Your task to perform on an android device: install app "Instagram" Image 0: 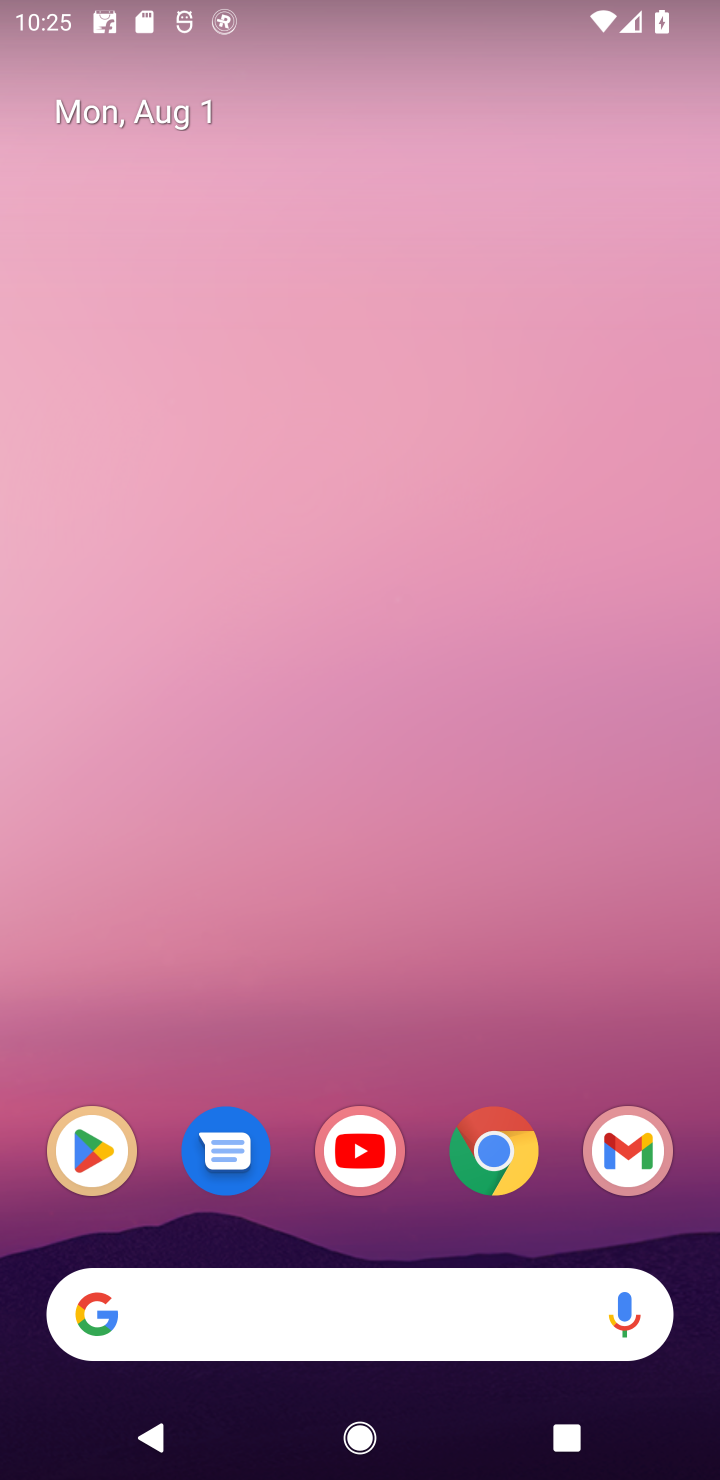
Step 0: click (66, 1136)
Your task to perform on an android device: install app "Instagram" Image 1: 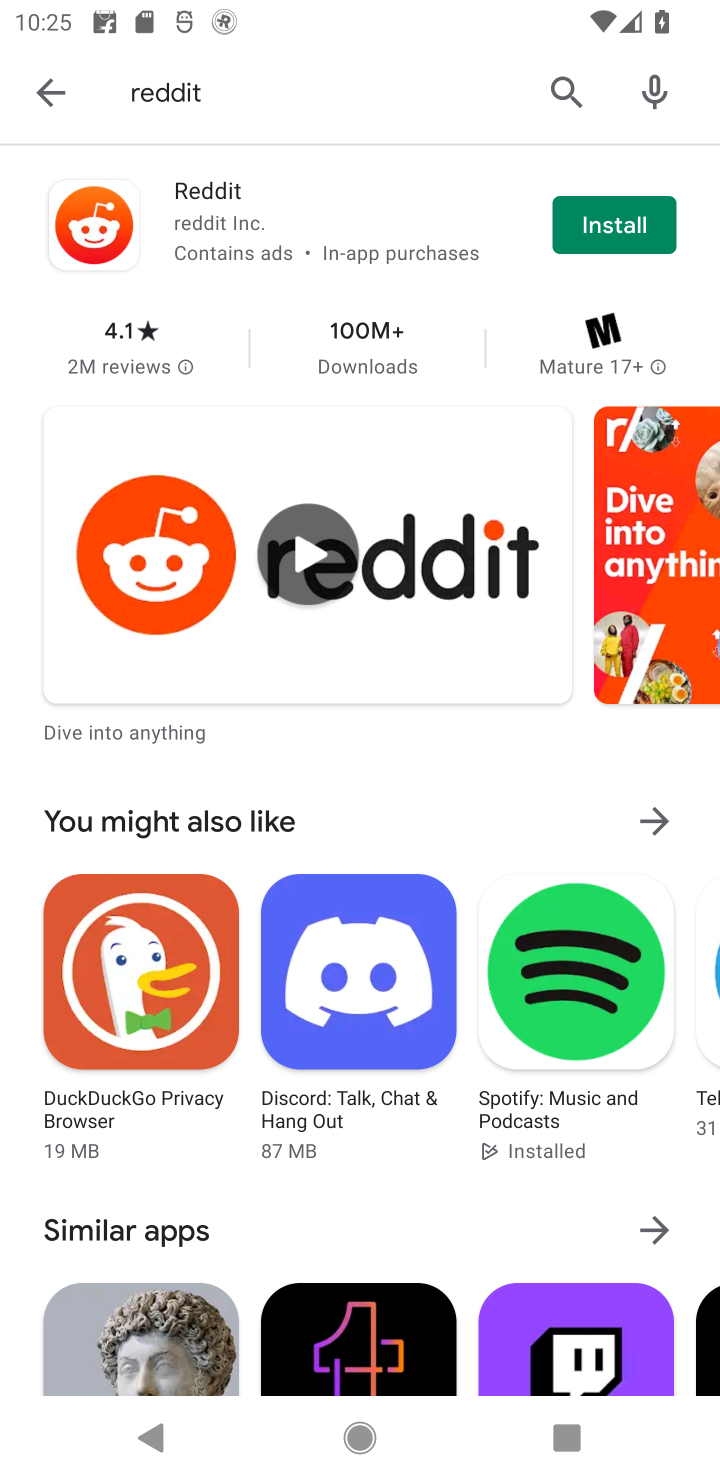
Step 1: click (576, 90)
Your task to perform on an android device: install app "Instagram" Image 2: 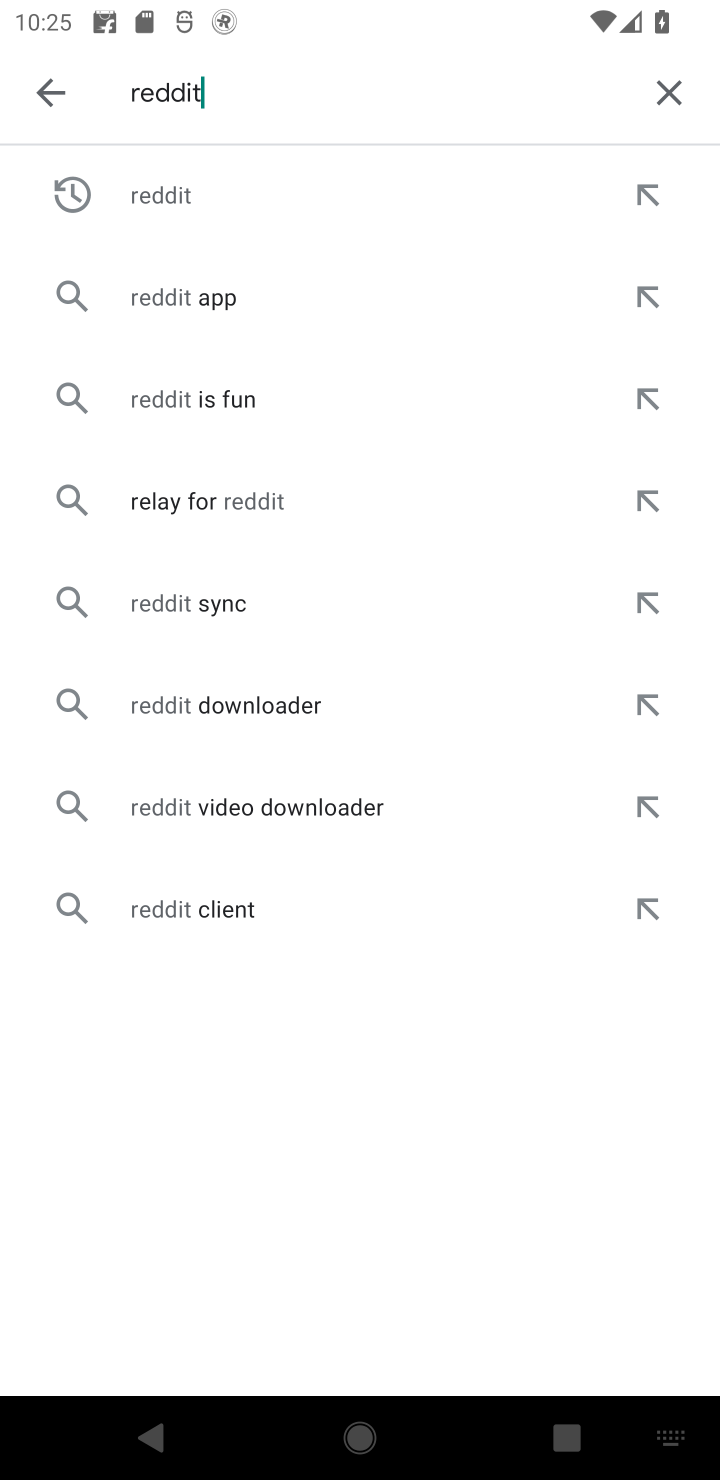
Step 2: click (653, 91)
Your task to perform on an android device: install app "Instagram" Image 3: 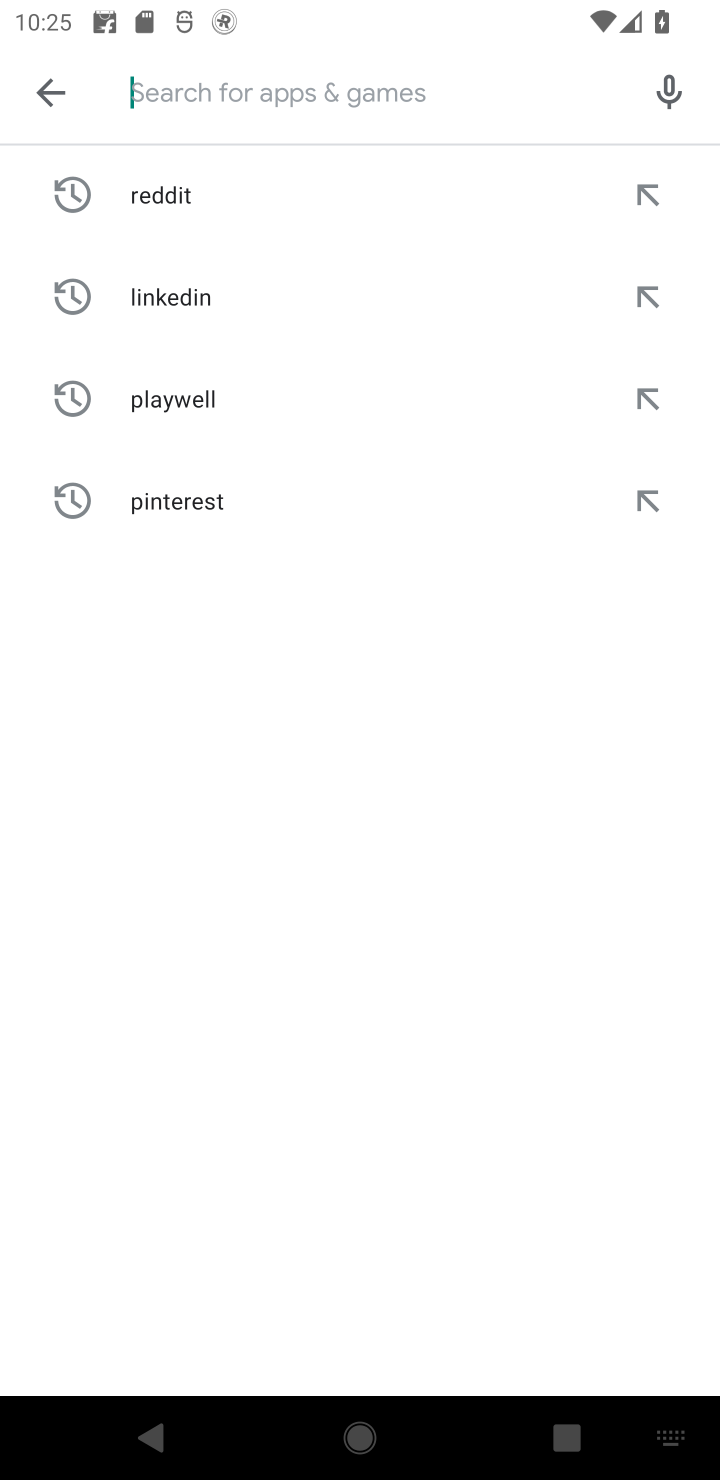
Step 3: type "Instagram"
Your task to perform on an android device: install app "Instagram" Image 4: 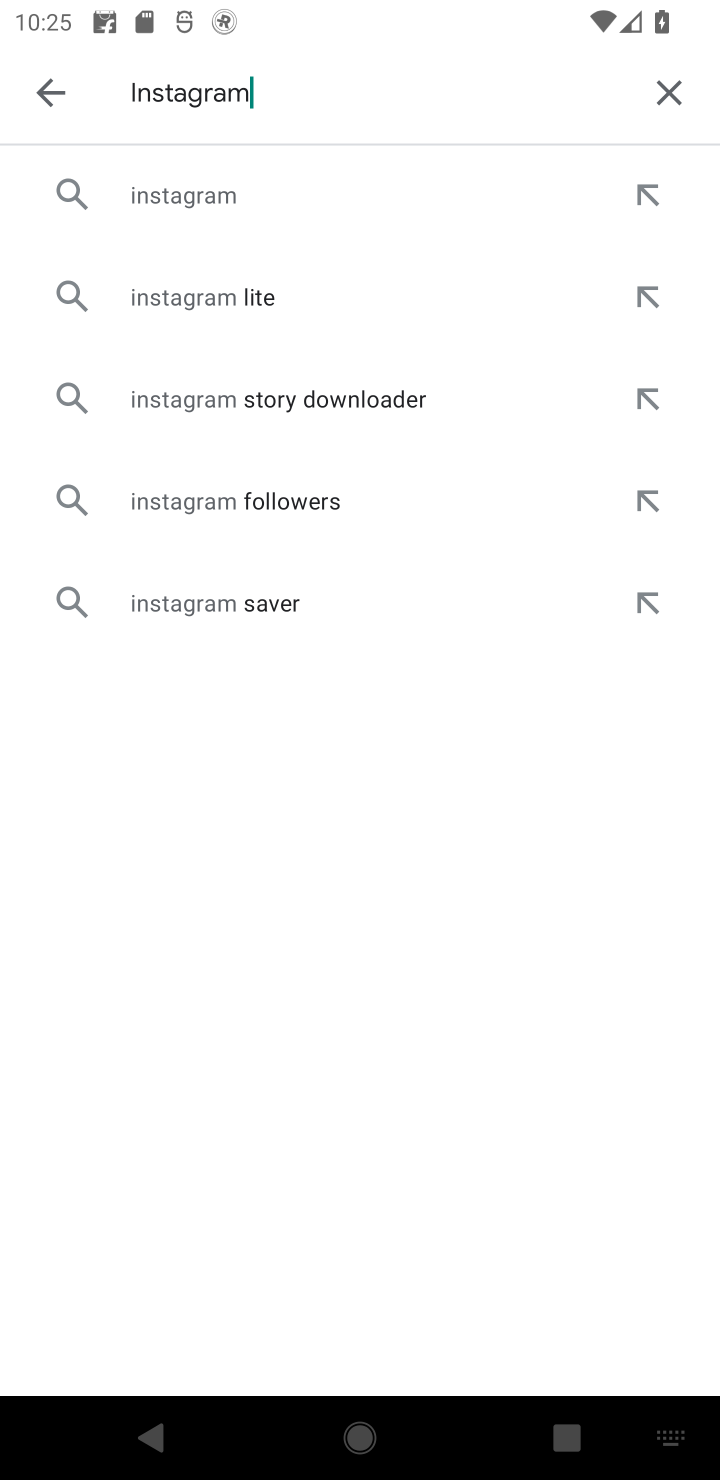
Step 4: click (274, 207)
Your task to perform on an android device: install app "Instagram" Image 5: 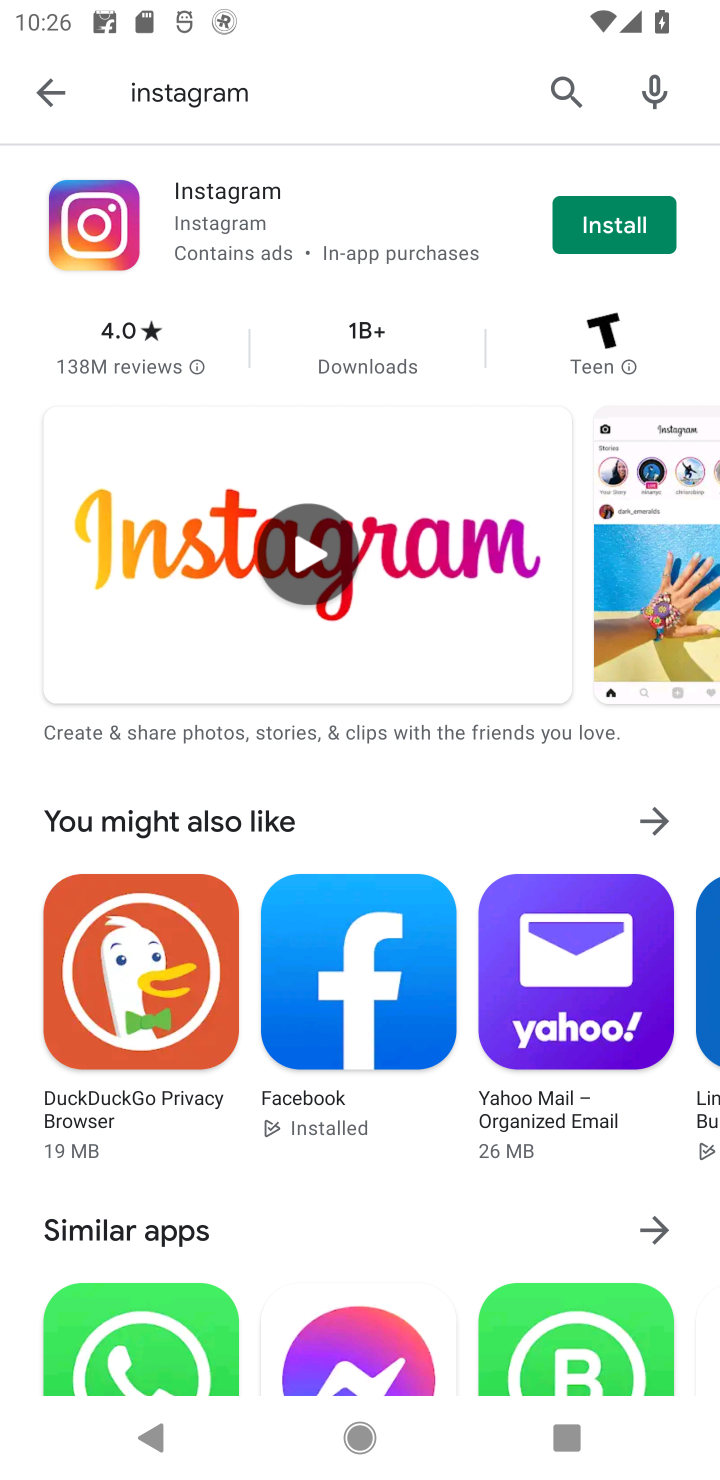
Step 5: click (579, 224)
Your task to perform on an android device: install app "Instagram" Image 6: 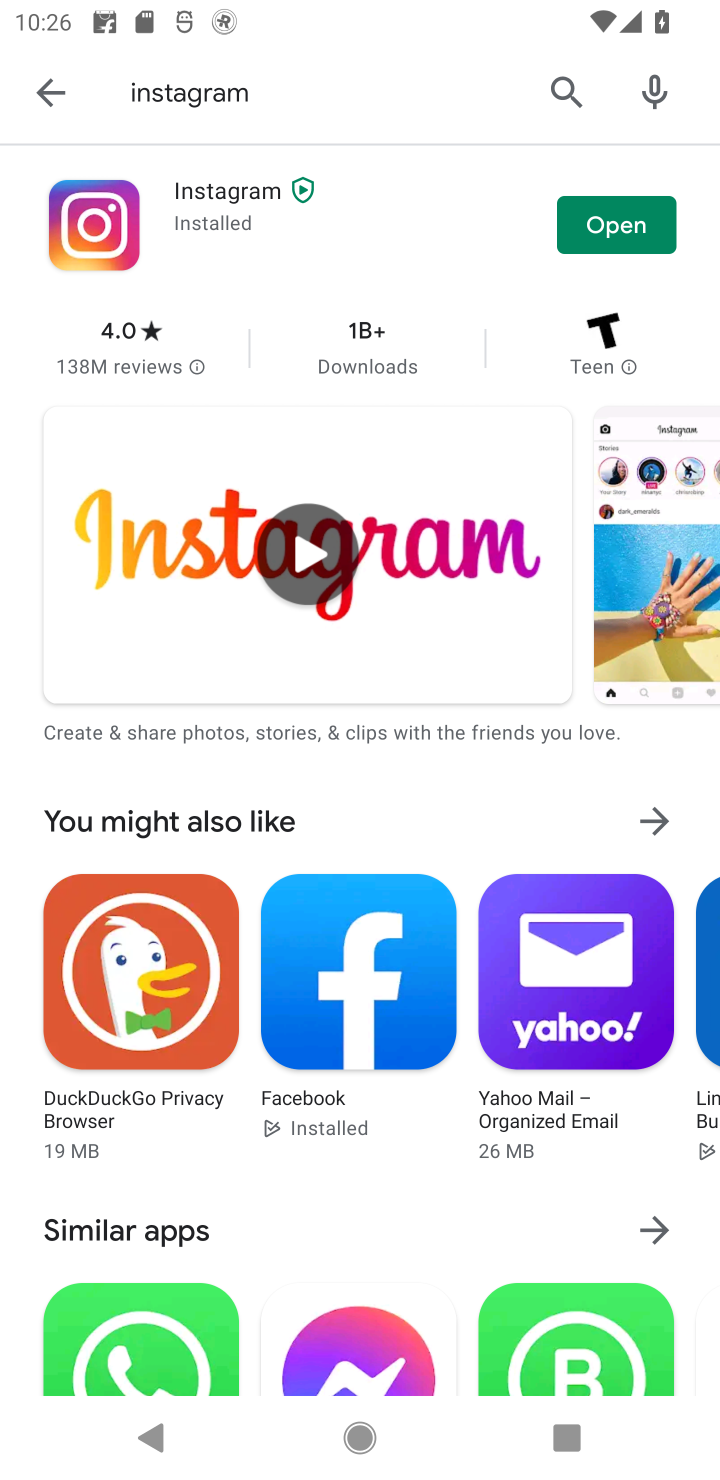
Step 6: task complete